Your task to perform on an android device: Go to Amazon Image 0: 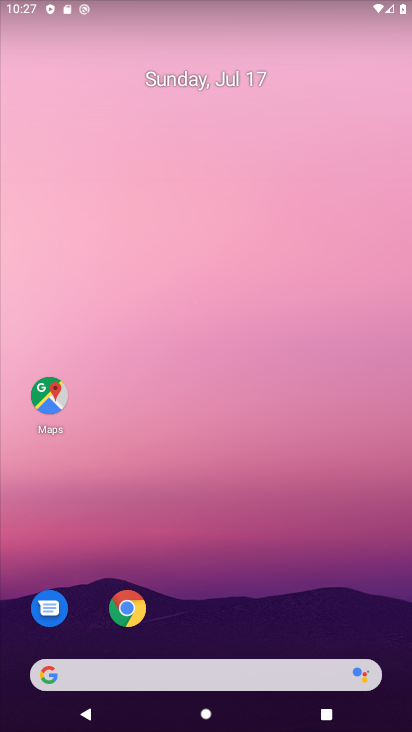
Step 0: click (127, 679)
Your task to perform on an android device: Go to Amazon Image 1: 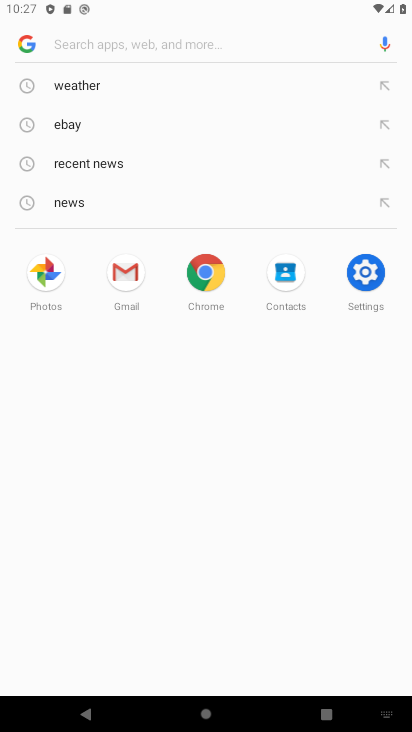
Step 1: type " Amazon"
Your task to perform on an android device: Go to Amazon Image 2: 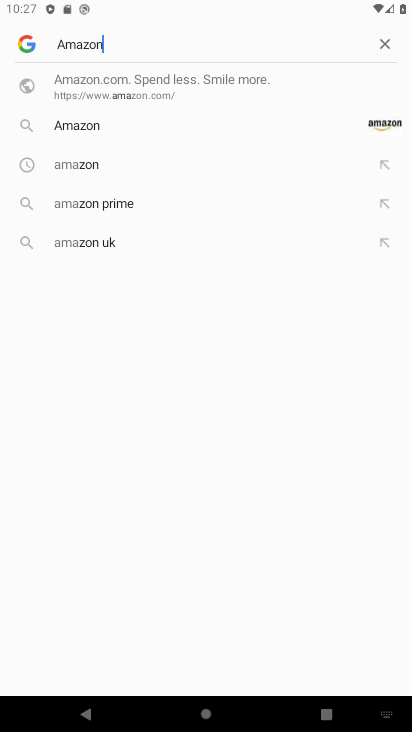
Step 2: type ""
Your task to perform on an android device: Go to Amazon Image 3: 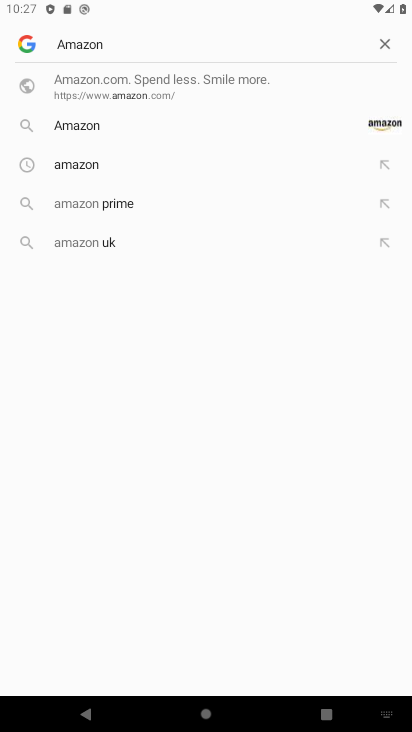
Step 3: click (108, 123)
Your task to perform on an android device: Go to Amazon Image 4: 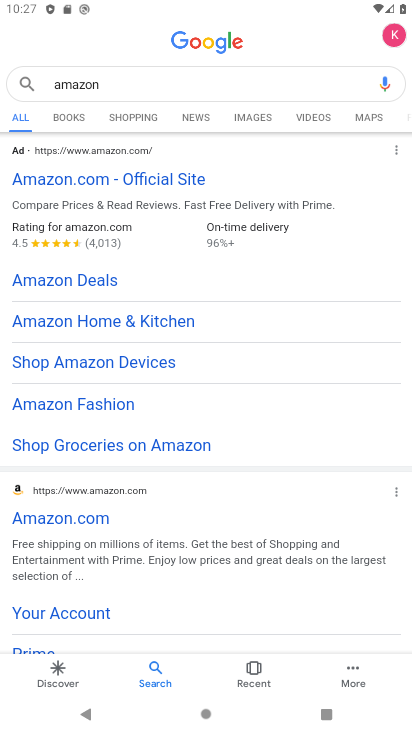
Step 4: task complete